Your task to perform on an android device: delete browsing data in the chrome app Image 0: 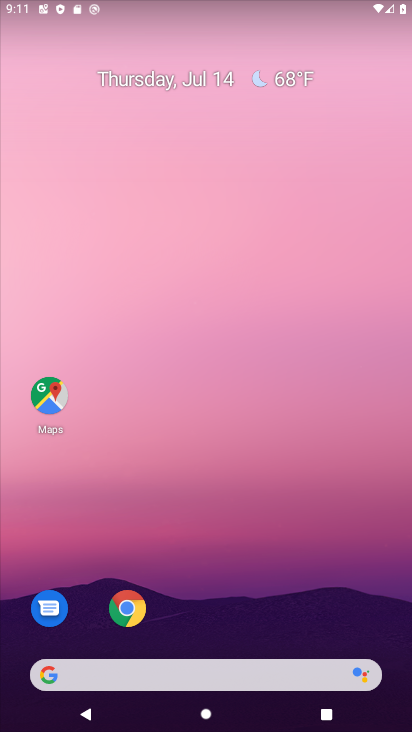
Step 0: click (124, 600)
Your task to perform on an android device: delete browsing data in the chrome app Image 1: 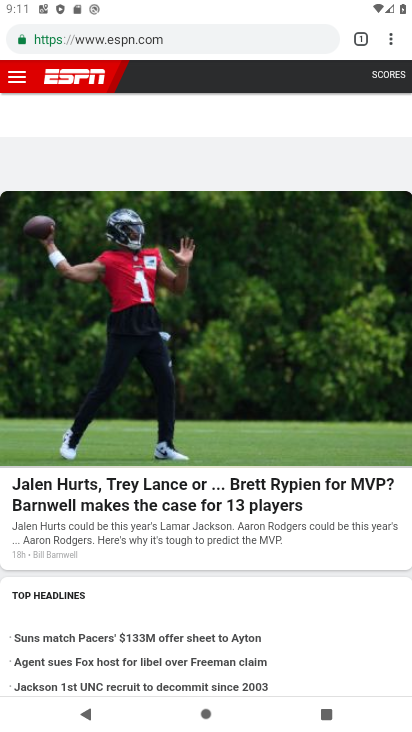
Step 1: drag from (389, 34) to (270, 222)
Your task to perform on an android device: delete browsing data in the chrome app Image 2: 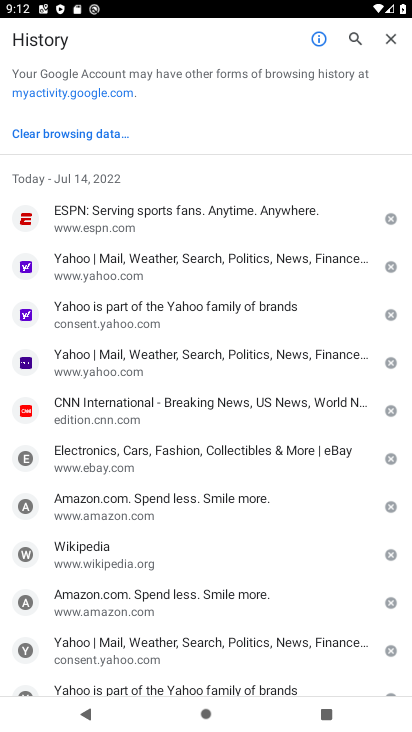
Step 2: click (86, 138)
Your task to perform on an android device: delete browsing data in the chrome app Image 3: 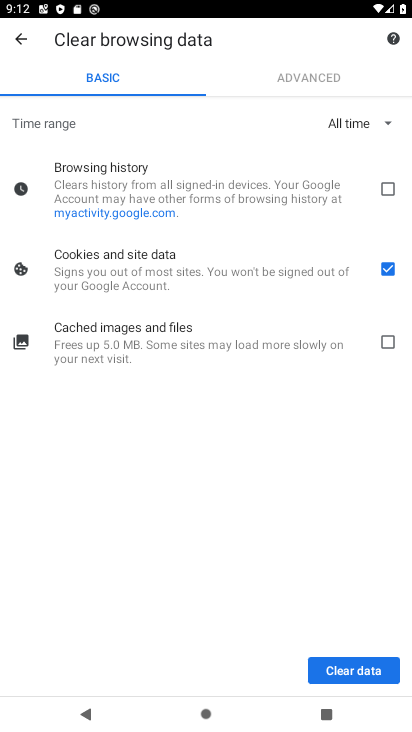
Step 3: click (394, 178)
Your task to perform on an android device: delete browsing data in the chrome app Image 4: 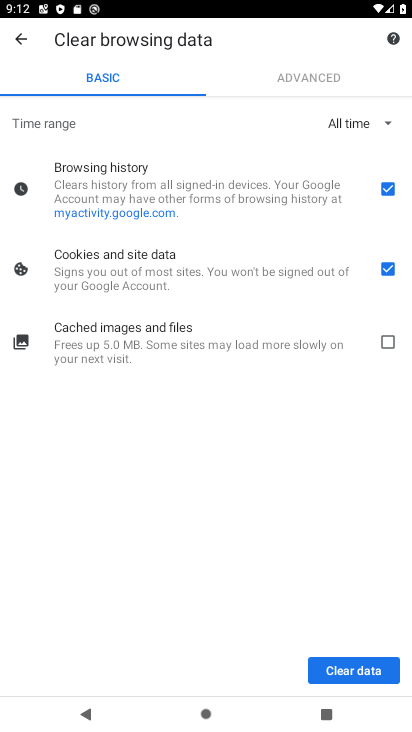
Step 4: click (373, 676)
Your task to perform on an android device: delete browsing data in the chrome app Image 5: 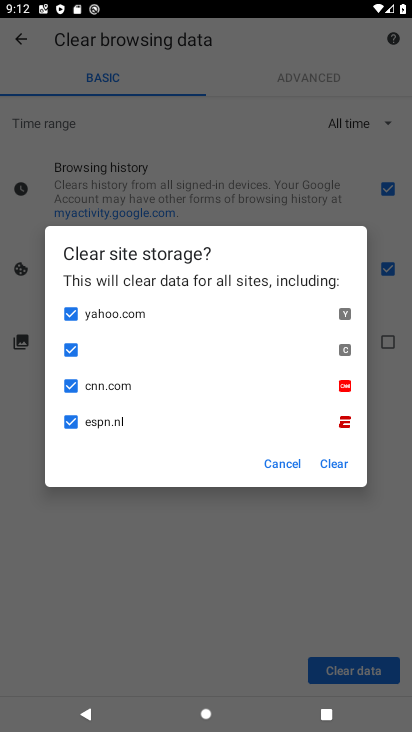
Step 5: click (333, 469)
Your task to perform on an android device: delete browsing data in the chrome app Image 6: 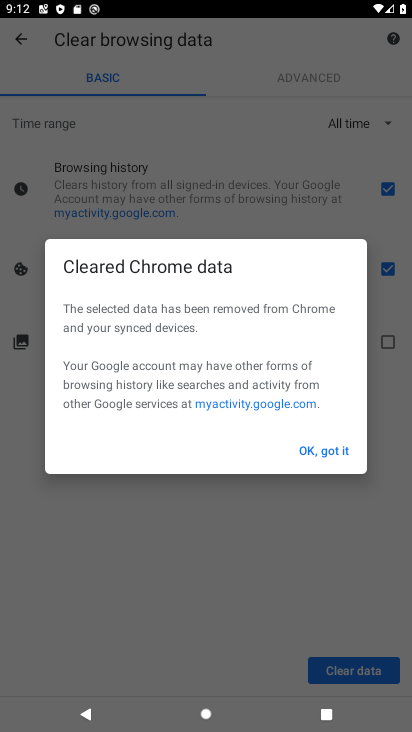
Step 6: click (336, 449)
Your task to perform on an android device: delete browsing data in the chrome app Image 7: 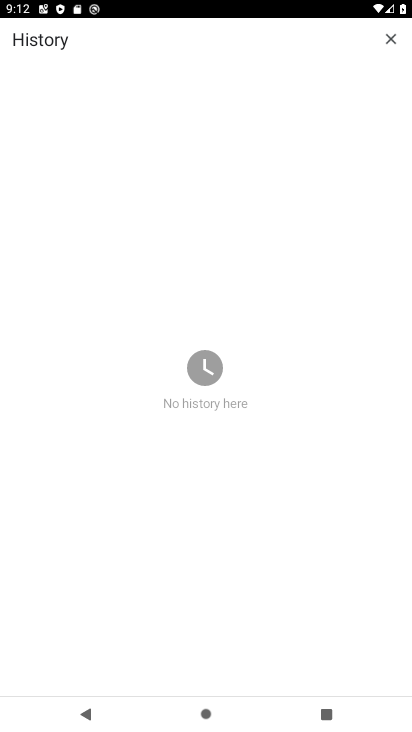
Step 7: task complete